Your task to perform on an android device: toggle javascript in the chrome app Image 0: 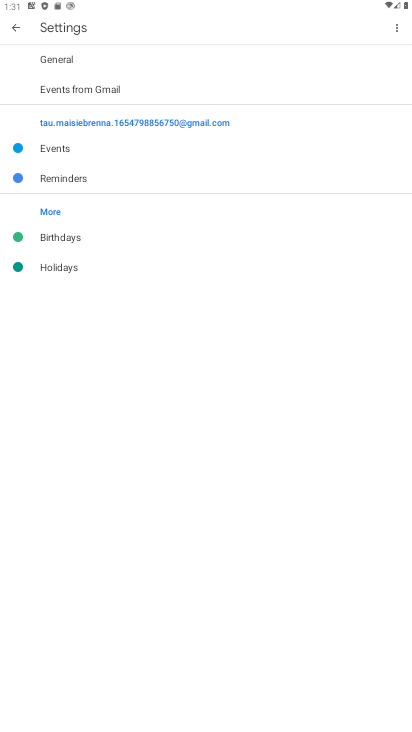
Step 0: press back button
Your task to perform on an android device: toggle javascript in the chrome app Image 1: 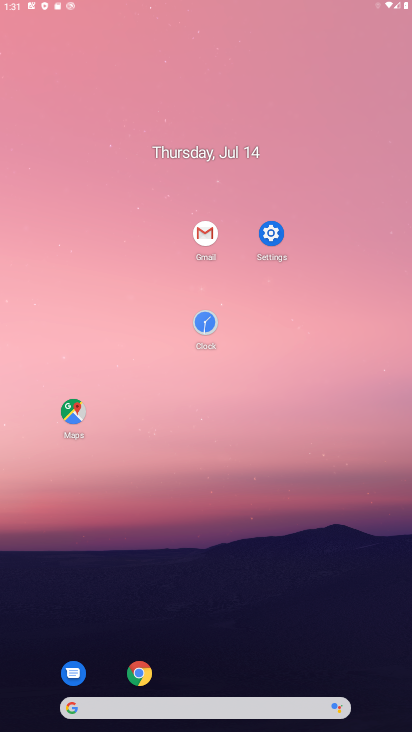
Step 1: press home button
Your task to perform on an android device: toggle javascript in the chrome app Image 2: 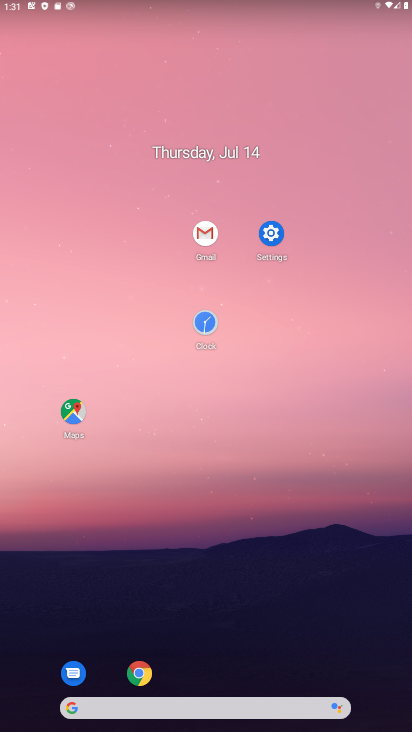
Step 2: click (136, 673)
Your task to perform on an android device: toggle javascript in the chrome app Image 3: 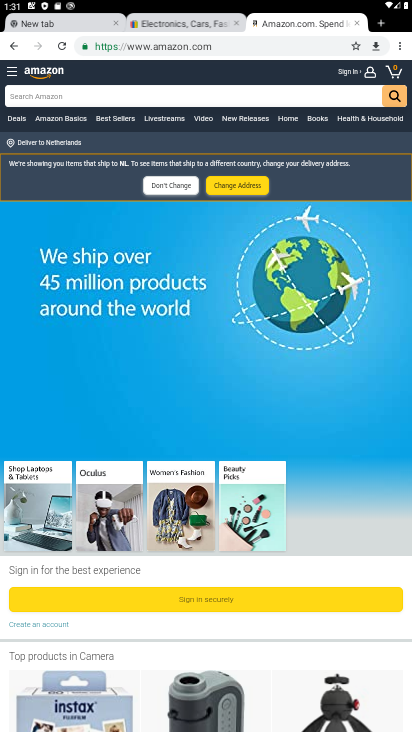
Step 3: click (399, 48)
Your task to perform on an android device: toggle javascript in the chrome app Image 4: 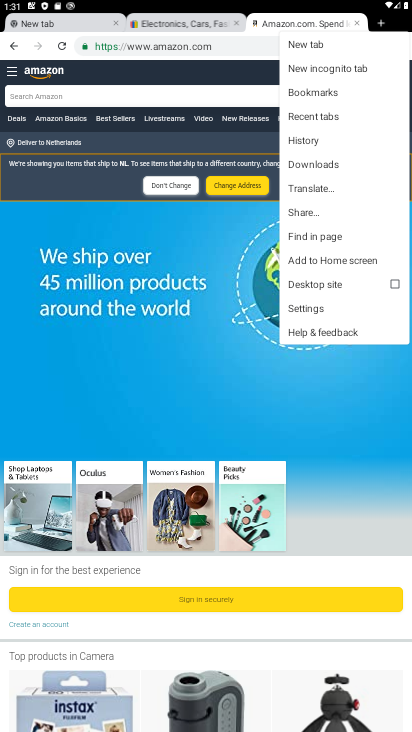
Step 4: click (323, 301)
Your task to perform on an android device: toggle javascript in the chrome app Image 5: 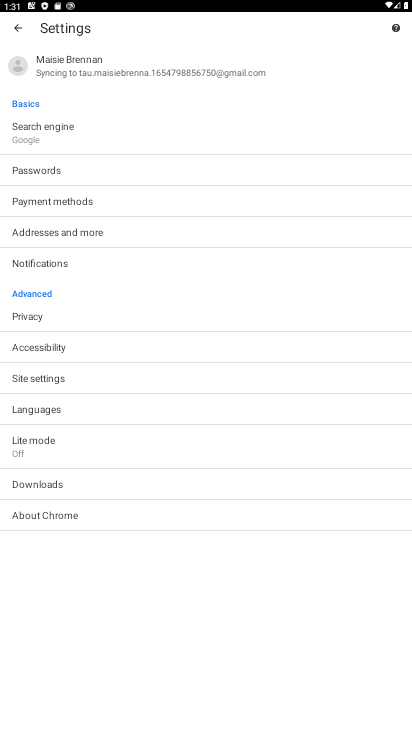
Step 5: click (130, 372)
Your task to perform on an android device: toggle javascript in the chrome app Image 6: 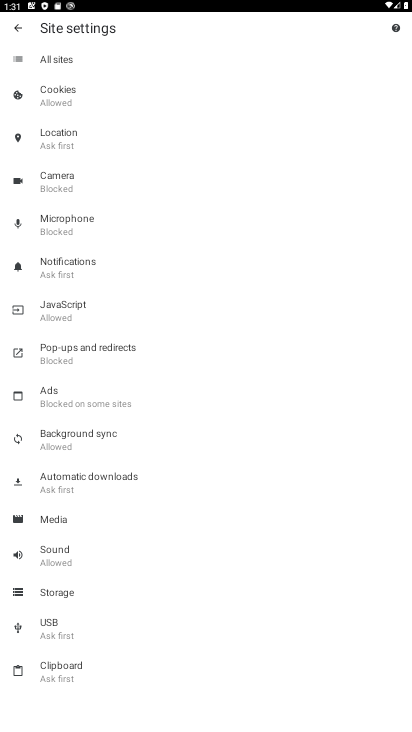
Step 6: click (105, 313)
Your task to perform on an android device: toggle javascript in the chrome app Image 7: 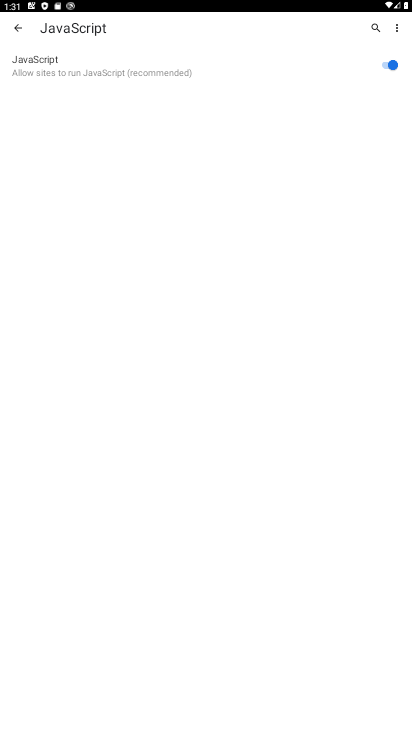
Step 7: click (396, 73)
Your task to perform on an android device: toggle javascript in the chrome app Image 8: 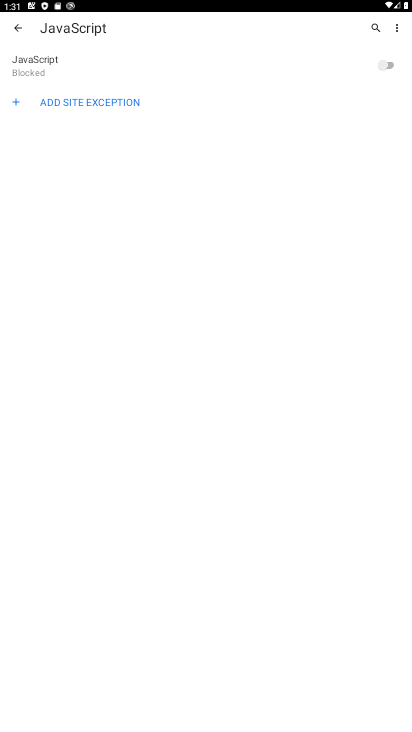
Step 8: task complete